Your task to perform on an android device: Open Yahoo.com Image 0: 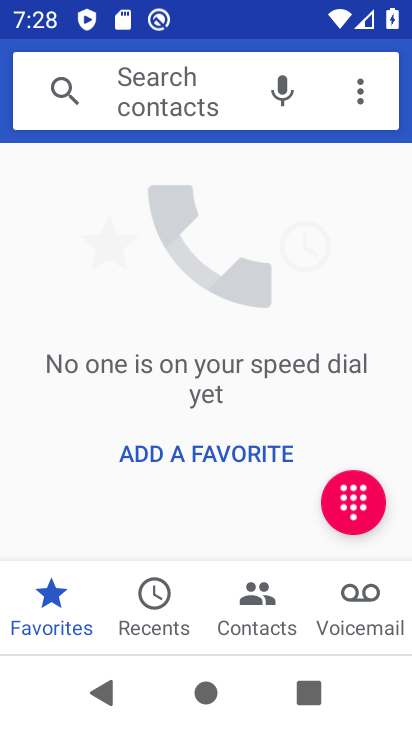
Step 0: press home button
Your task to perform on an android device: Open Yahoo.com Image 1: 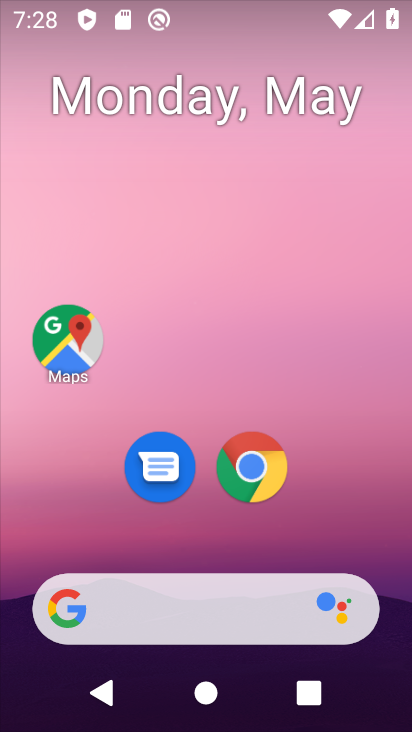
Step 1: click (272, 468)
Your task to perform on an android device: Open Yahoo.com Image 2: 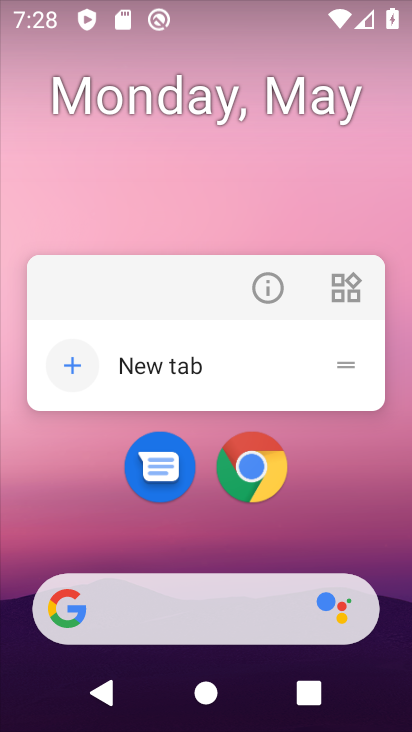
Step 2: click (268, 469)
Your task to perform on an android device: Open Yahoo.com Image 3: 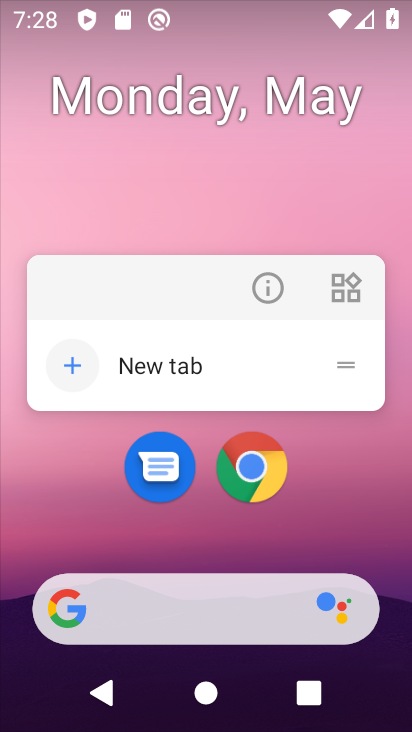
Step 3: click (258, 482)
Your task to perform on an android device: Open Yahoo.com Image 4: 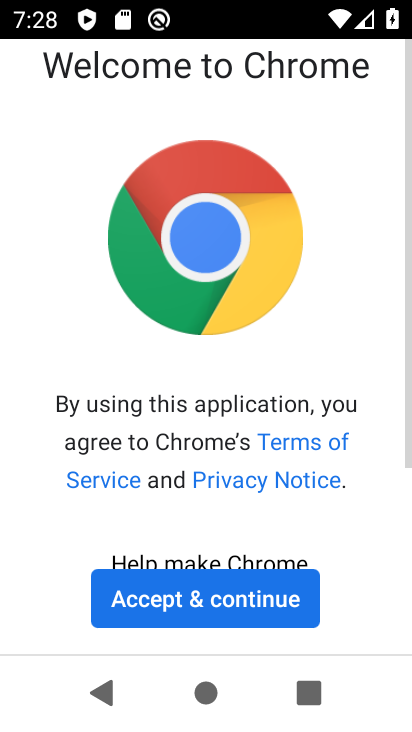
Step 4: click (260, 614)
Your task to perform on an android device: Open Yahoo.com Image 5: 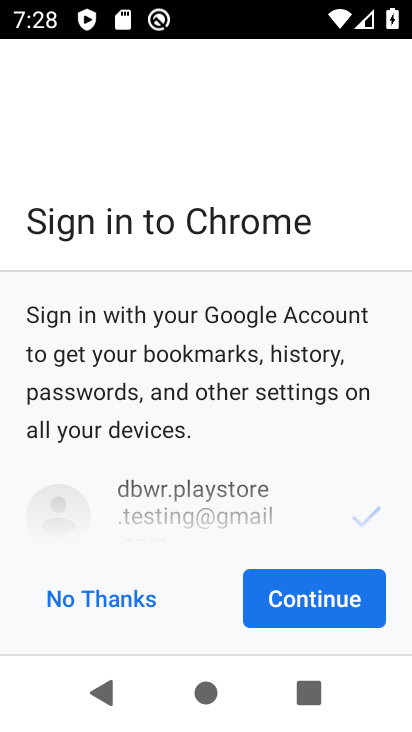
Step 5: click (383, 610)
Your task to perform on an android device: Open Yahoo.com Image 6: 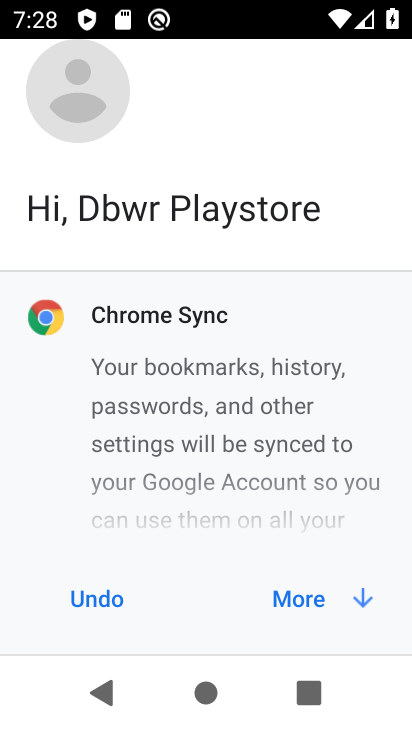
Step 6: click (350, 605)
Your task to perform on an android device: Open Yahoo.com Image 7: 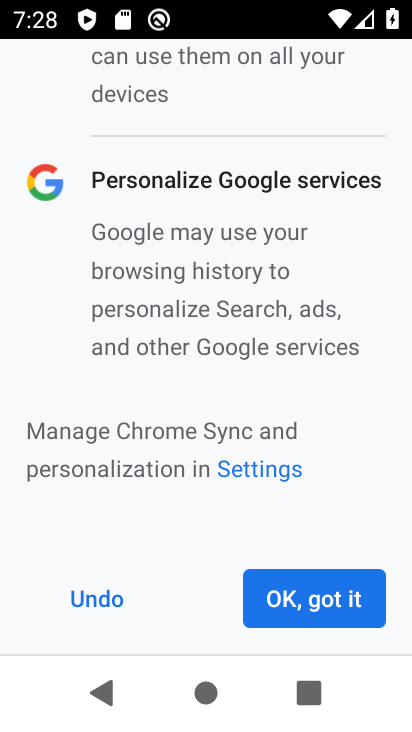
Step 7: click (350, 605)
Your task to perform on an android device: Open Yahoo.com Image 8: 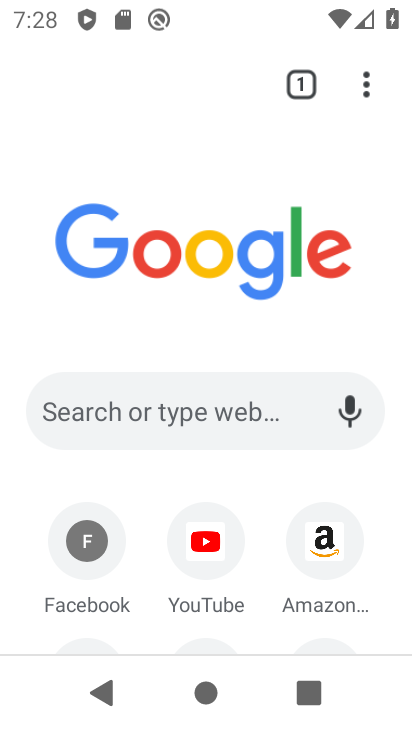
Step 8: drag from (238, 596) to (313, 365)
Your task to perform on an android device: Open Yahoo.com Image 9: 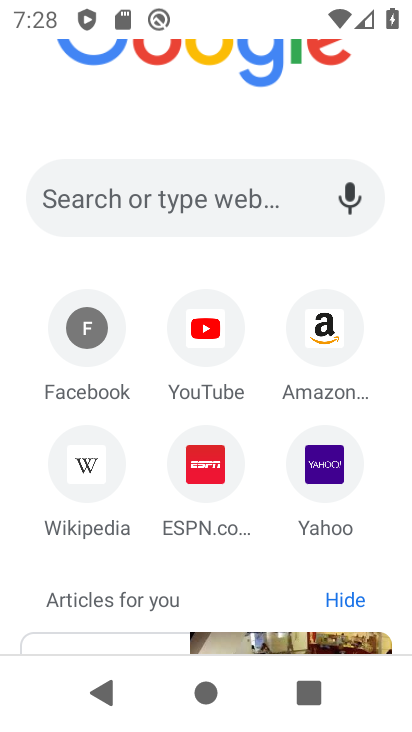
Step 9: click (323, 457)
Your task to perform on an android device: Open Yahoo.com Image 10: 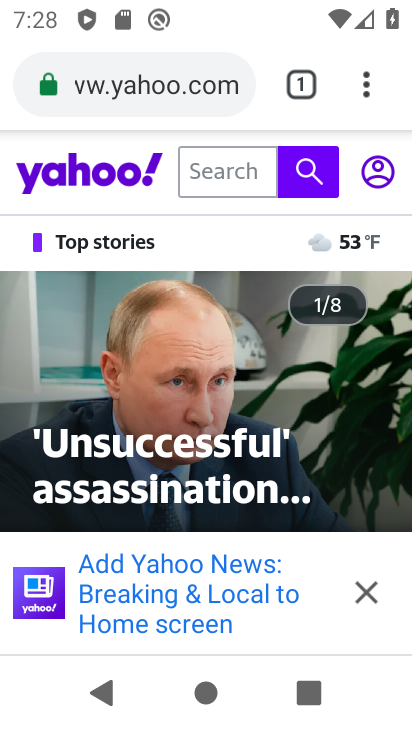
Step 10: task complete